Your task to perform on an android device: Open Yahoo.com Image 0: 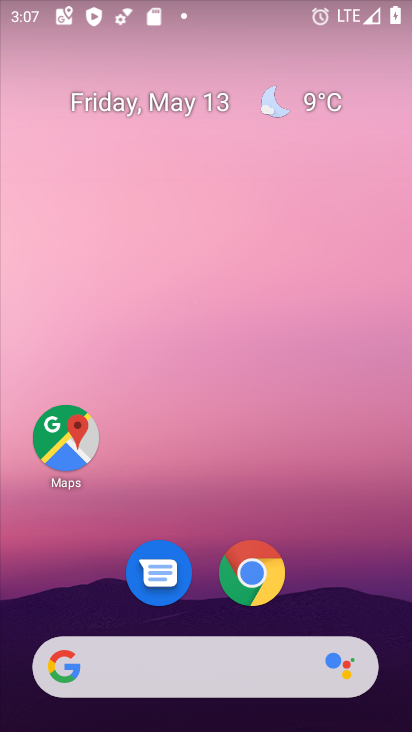
Step 0: click (251, 571)
Your task to perform on an android device: Open Yahoo.com Image 1: 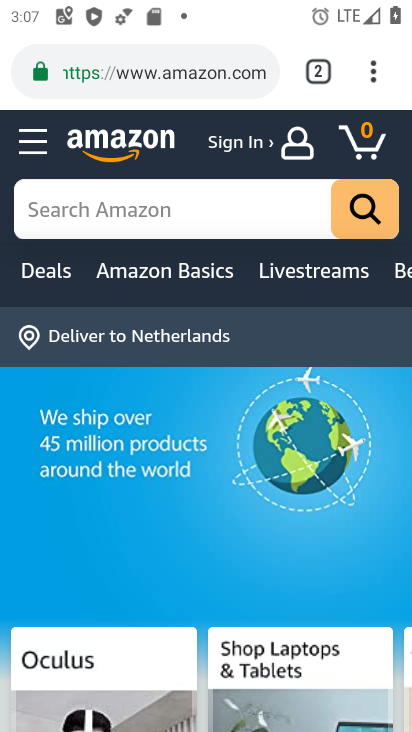
Step 1: click (224, 76)
Your task to perform on an android device: Open Yahoo.com Image 2: 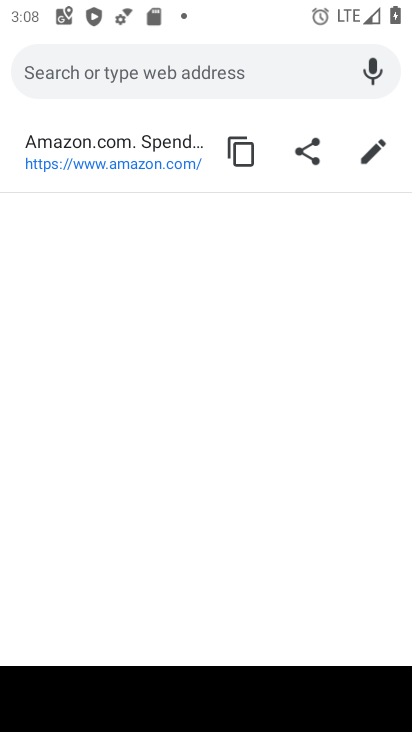
Step 2: type "Yahoo.com"
Your task to perform on an android device: Open Yahoo.com Image 3: 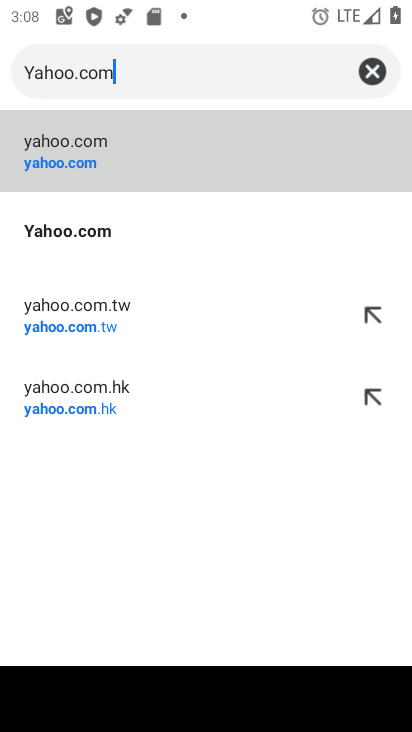
Step 3: click (82, 224)
Your task to perform on an android device: Open Yahoo.com Image 4: 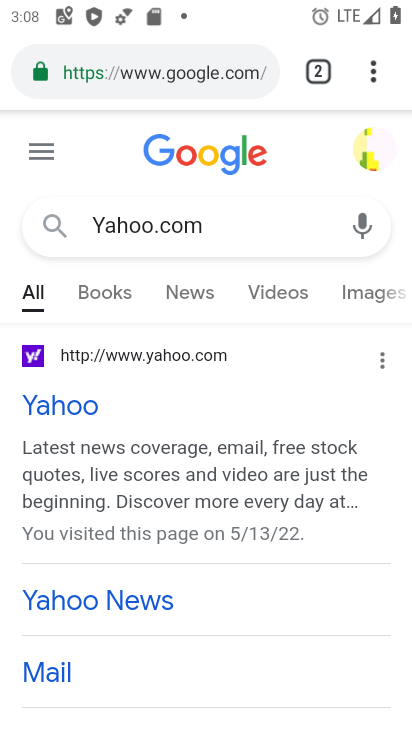
Step 4: click (77, 369)
Your task to perform on an android device: Open Yahoo.com Image 5: 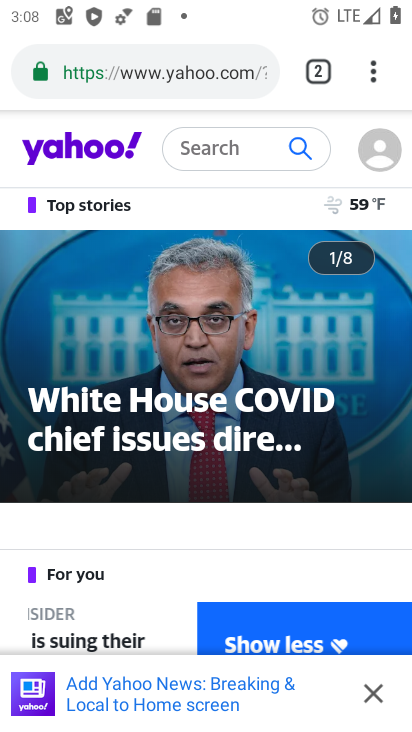
Step 5: task complete